Your task to perform on an android device: Clear the shopping cart on amazon.com. Search for macbook on amazon.com, select the first entry, add it to the cart, then select checkout. Image 0: 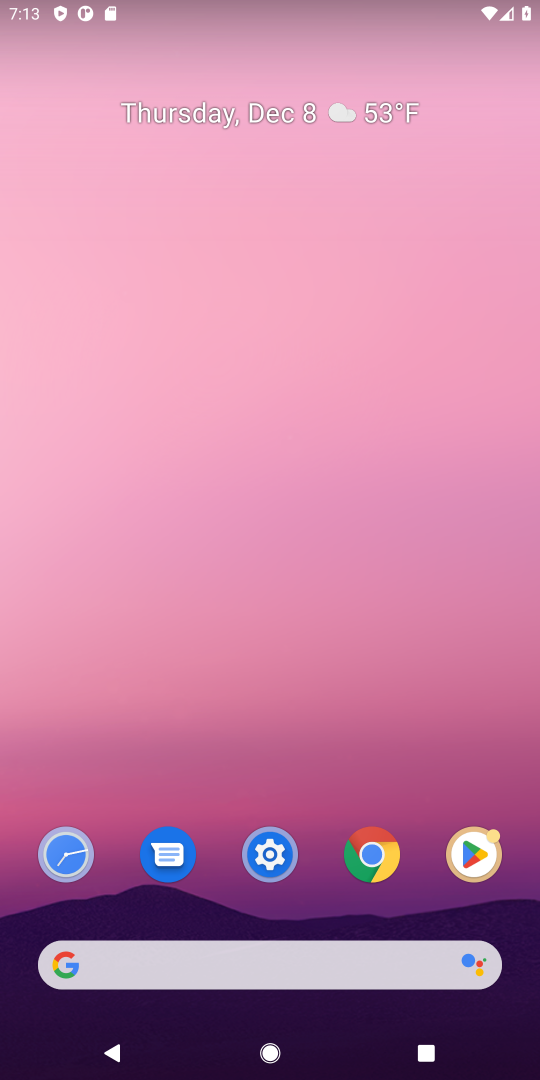
Step 0: press home button
Your task to perform on an android device: Clear the shopping cart on amazon.com. Search for macbook on amazon.com, select the first entry, add it to the cart, then select checkout. Image 1: 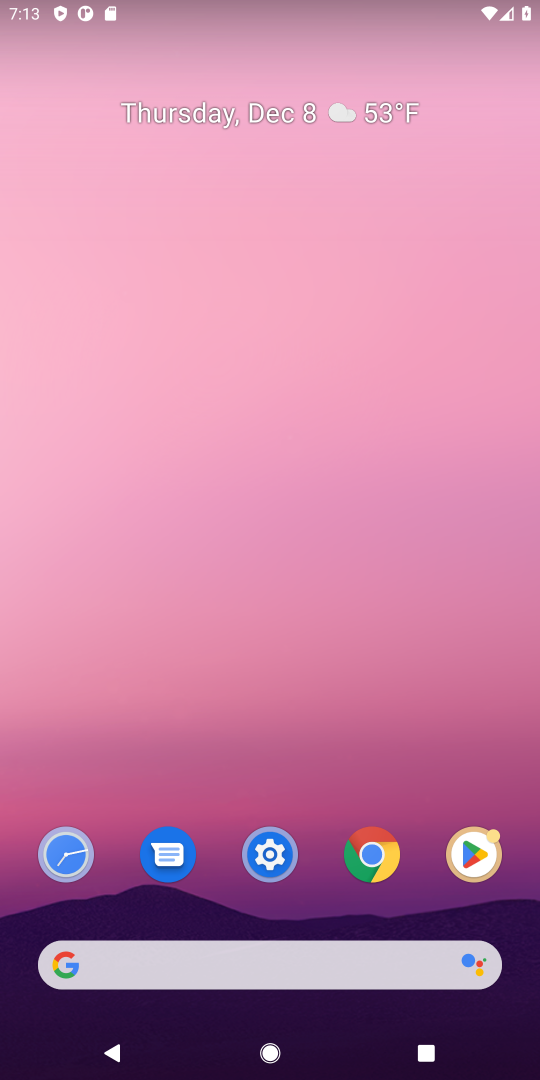
Step 1: click (89, 955)
Your task to perform on an android device: Clear the shopping cart on amazon.com. Search for macbook on amazon.com, select the first entry, add it to the cart, then select checkout. Image 2: 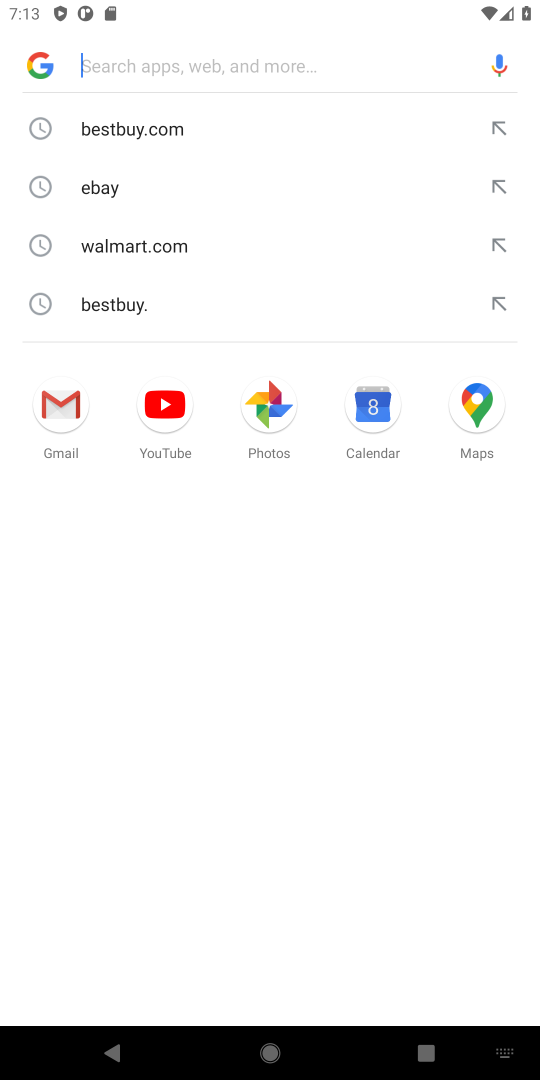
Step 2: type "amazon.com"
Your task to perform on an android device: Clear the shopping cart on amazon.com. Search for macbook on amazon.com, select the first entry, add it to the cart, then select checkout. Image 3: 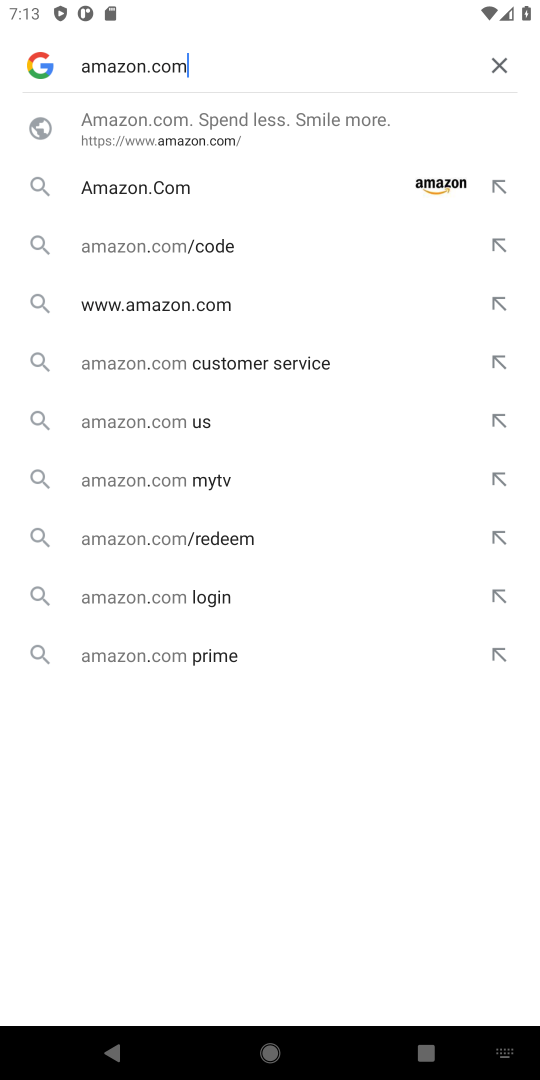
Step 3: press enter
Your task to perform on an android device: Clear the shopping cart on amazon.com. Search for macbook on amazon.com, select the first entry, add it to the cart, then select checkout. Image 4: 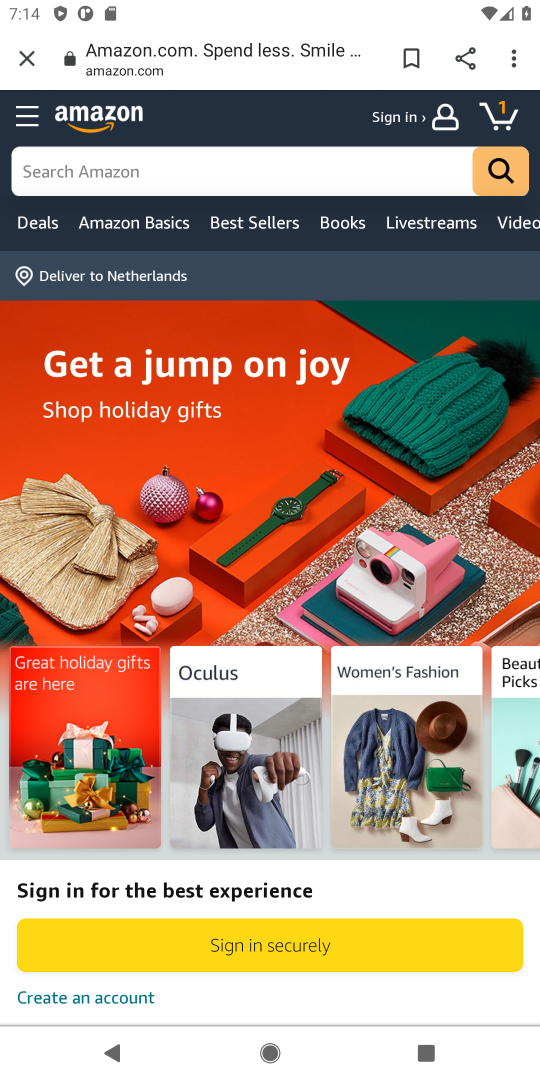
Step 4: click (498, 112)
Your task to perform on an android device: Clear the shopping cart on amazon.com. Search for macbook on amazon.com, select the first entry, add it to the cart, then select checkout. Image 5: 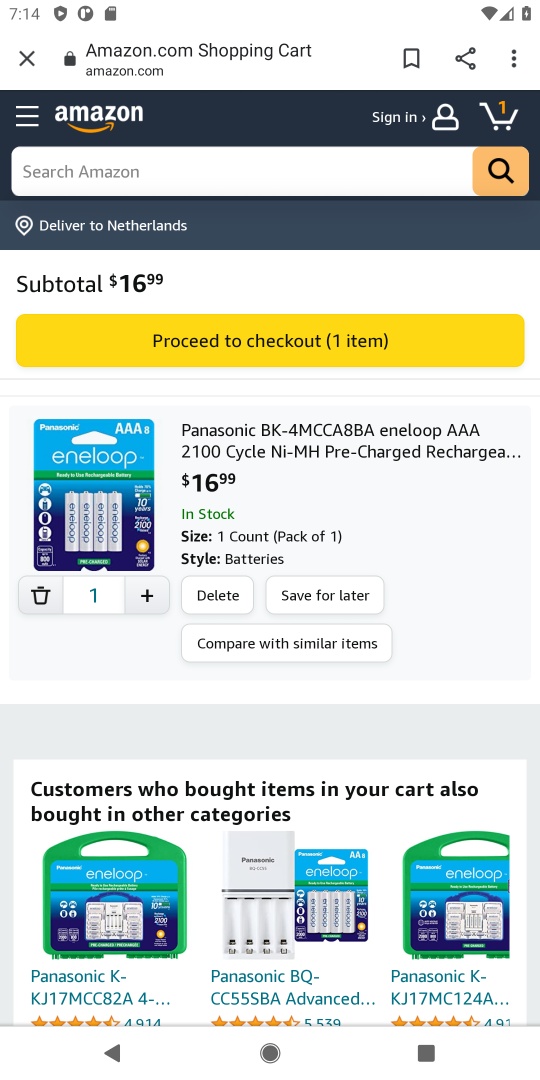
Step 5: click (31, 589)
Your task to perform on an android device: Clear the shopping cart on amazon.com. Search for macbook on amazon.com, select the first entry, add it to the cart, then select checkout. Image 6: 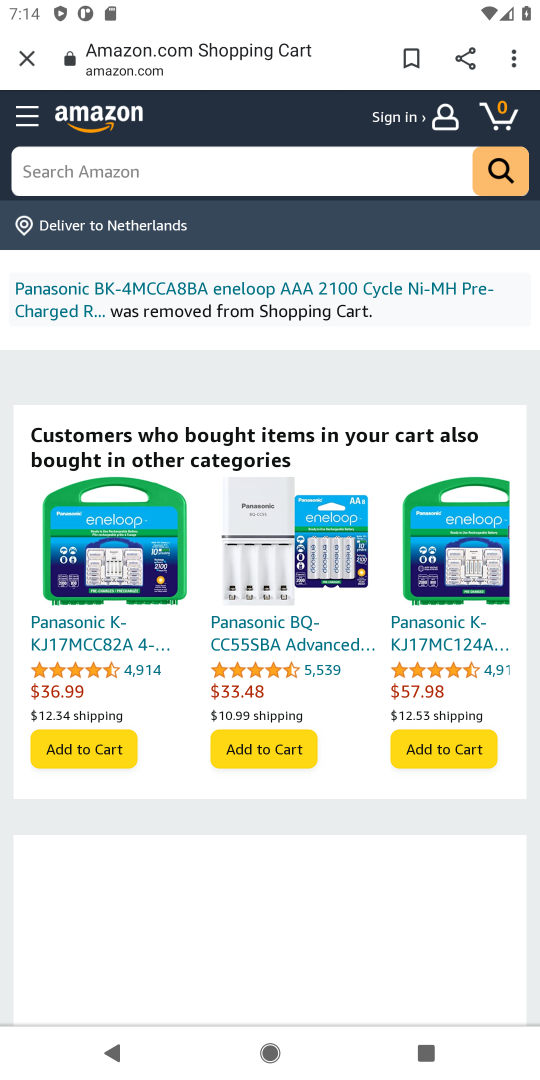
Step 6: click (151, 163)
Your task to perform on an android device: Clear the shopping cart on amazon.com. Search for macbook on amazon.com, select the first entry, add it to the cart, then select checkout. Image 7: 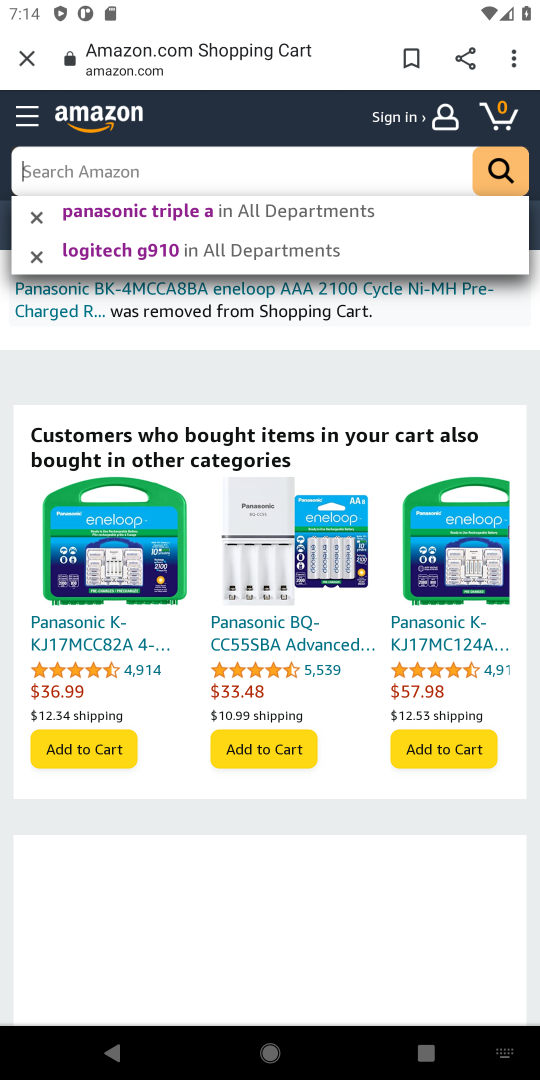
Step 7: type "macbook"
Your task to perform on an android device: Clear the shopping cart on amazon.com. Search for macbook on amazon.com, select the first entry, add it to the cart, then select checkout. Image 8: 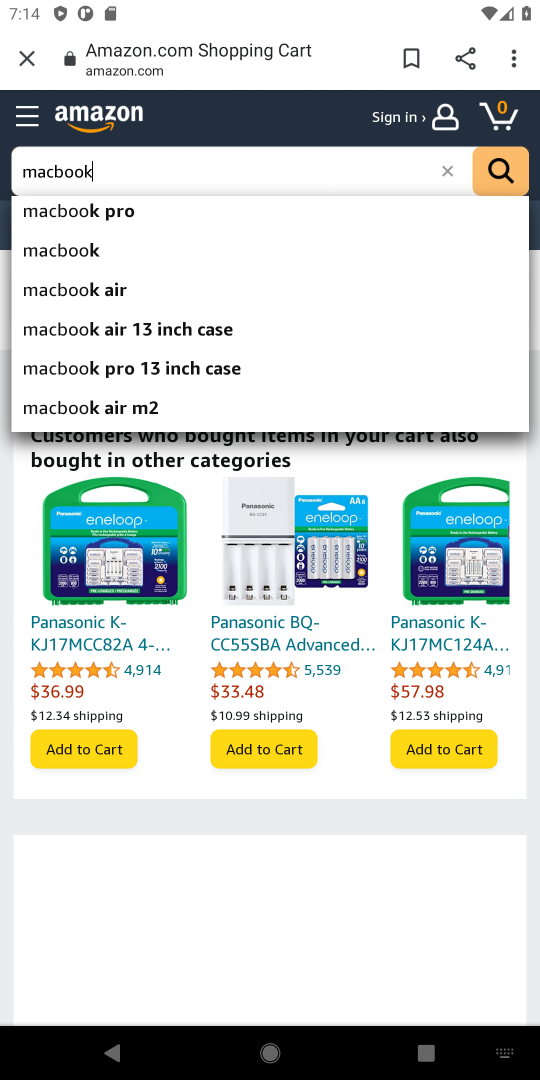
Step 8: press enter
Your task to perform on an android device: Clear the shopping cart on amazon.com. Search for macbook on amazon.com, select the first entry, add it to the cart, then select checkout. Image 9: 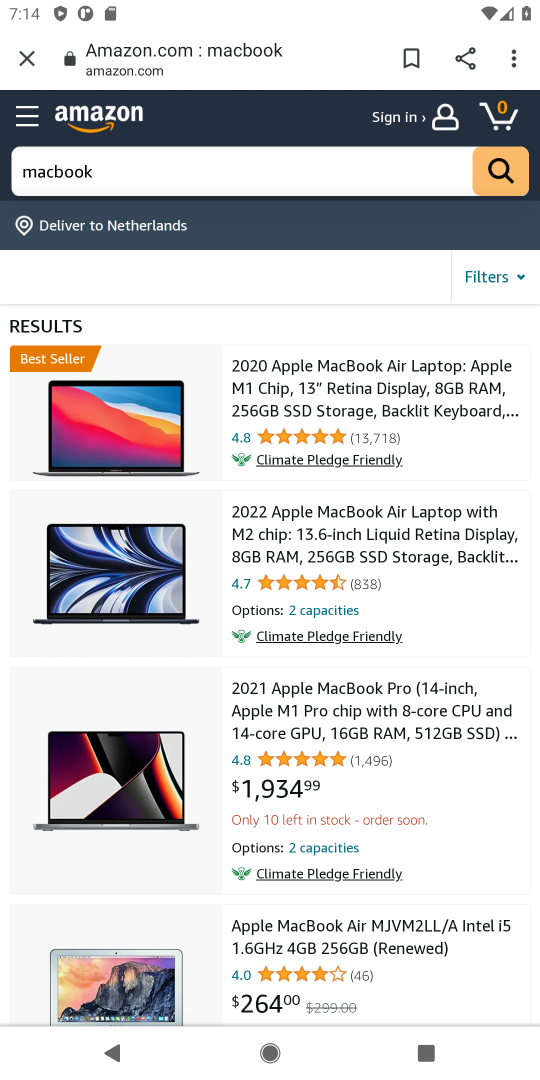
Step 9: click (337, 380)
Your task to perform on an android device: Clear the shopping cart on amazon.com. Search for macbook on amazon.com, select the first entry, add it to the cart, then select checkout. Image 10: 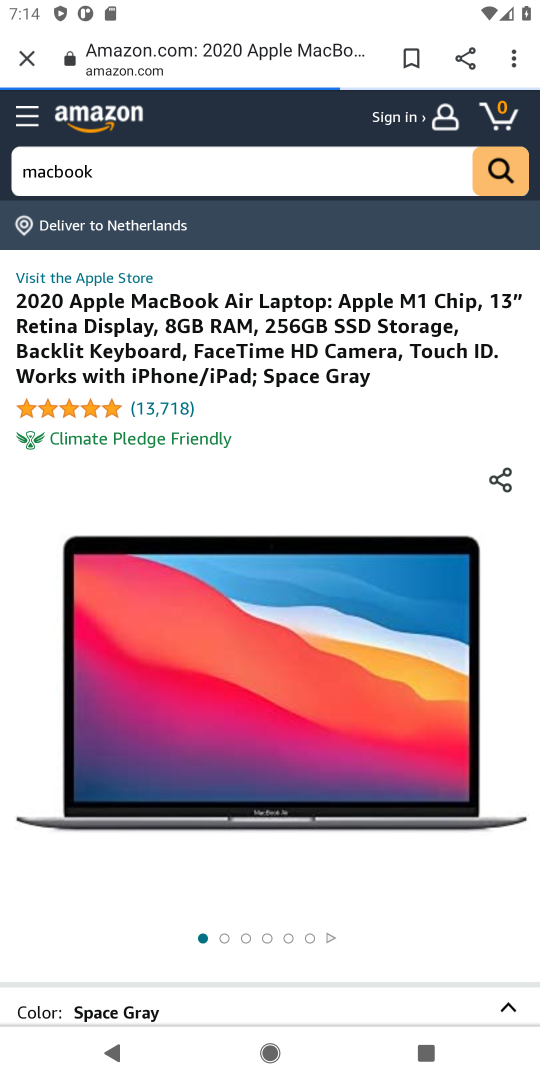
Step 10: drag from (433, 895) to (478, 421)
Your task to perform on an android device: Clear the shopping cart on amazon.com. Search for macbook on amazon.com, select the first entry, add it to the cart, then select checkout. Image 11: 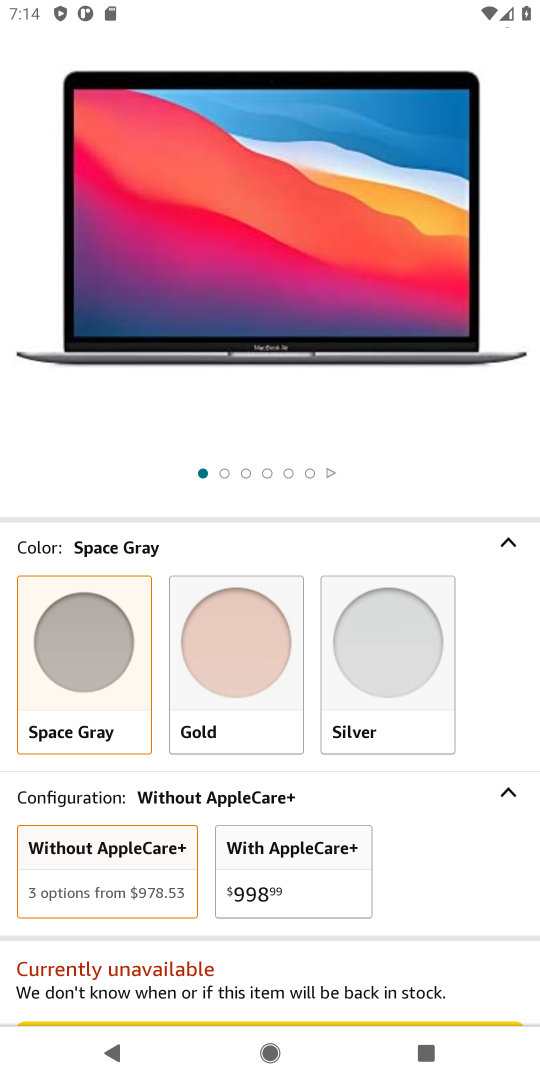
Step 11: drag from (432, 805) to (481, 417)
Your task to perform on an android device: Clear the shopping cart on amazon.com. Search for macbook on amazon.com, select the first entry, add it to the cart, then select checkout. Image 12: 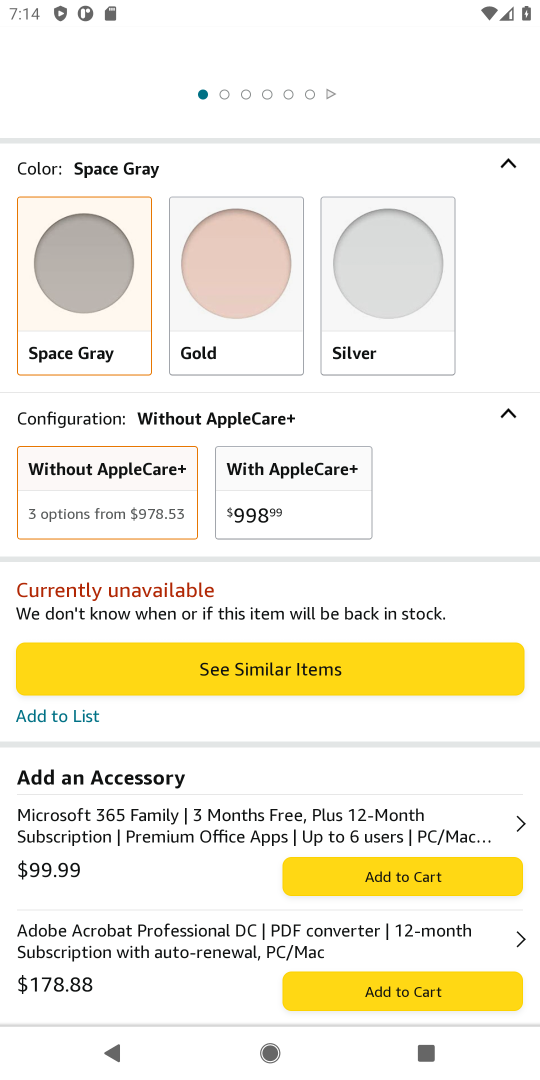
Step 12: press back button
Your task to perform on an android device: Clear the shopping cart on amazon.com. Search for macbook on amazon.com, select the first entry, add it to the cart, then select checkout. Image 13: 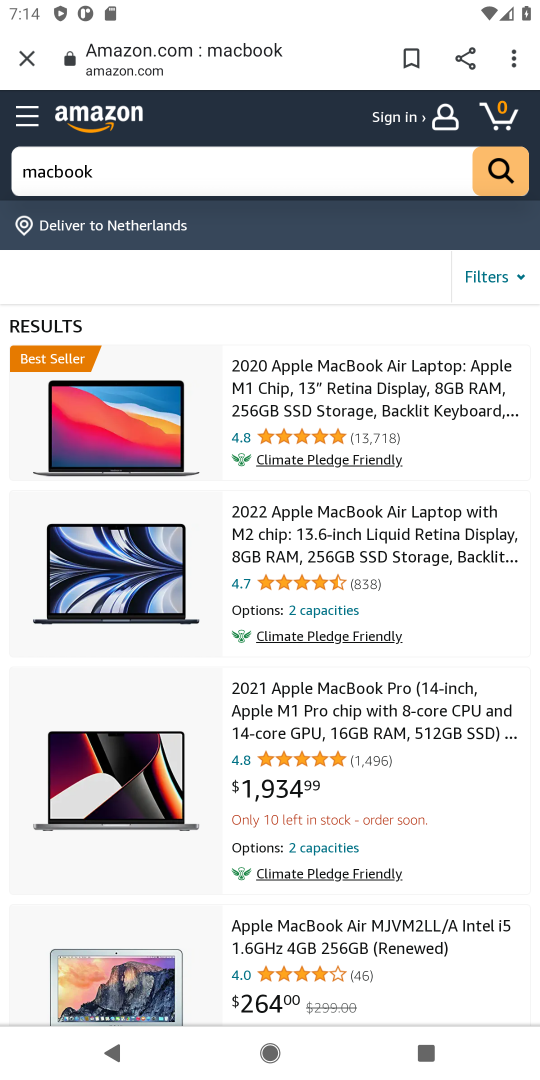
Step 13: click (342, 540)
Your task to perform on an android device: Clear the shopping cart on amazon.com. Search for macbook on amazon.com, select the first entry, add it to the cart, then select checkout. Image 14: 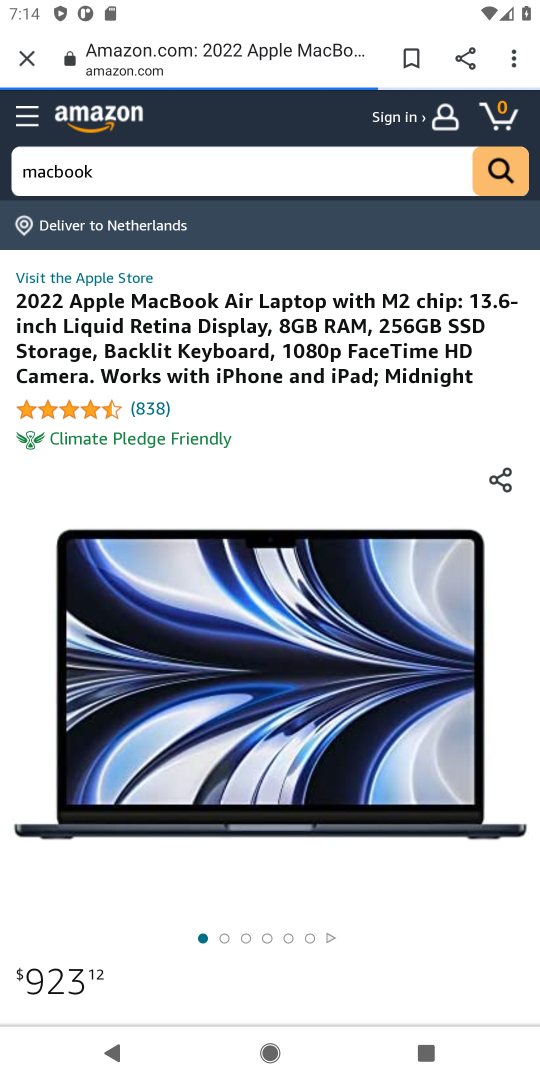
Step 14: task complete